Your task to perform on an android device: turn off improve location accuracy Image 0: 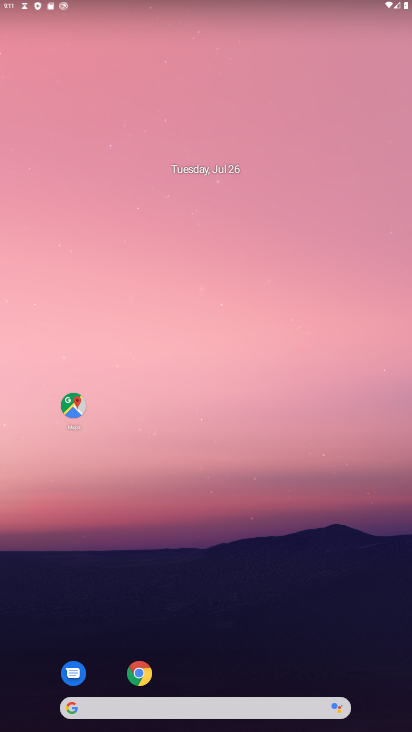
Step 0: drag from (202, 704) to (276, 107)
Your task to perform on an android device: turn off improve location accuracy Image 1: 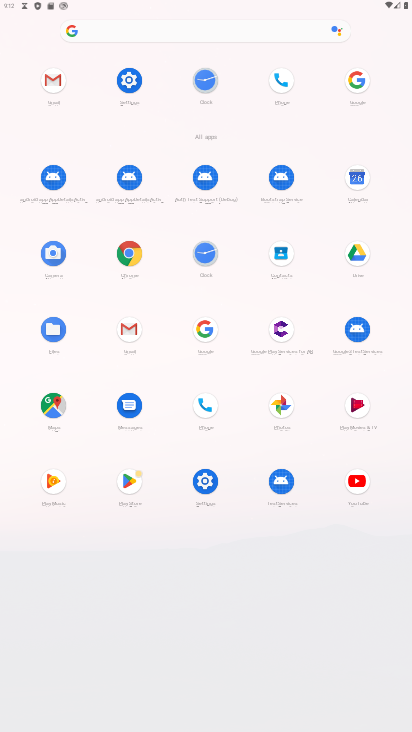
Step 1: click (129, 80)
Your task to perform on an android device: turn off improve location accuracy Image 2: 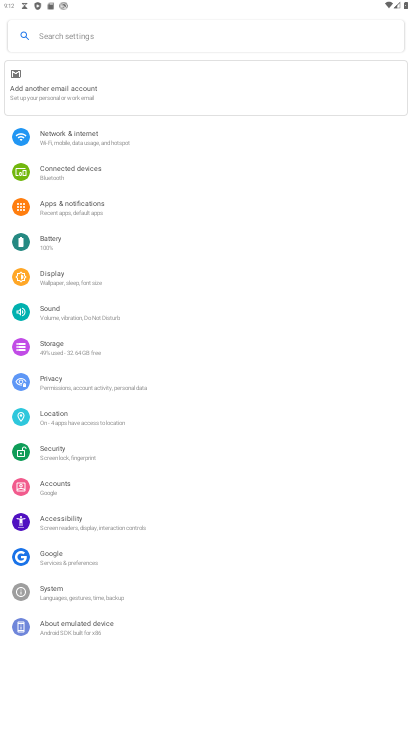
Step 2: click (51, 417)
Your task to perform on an android device: turn off improve location accuracy Image 3: 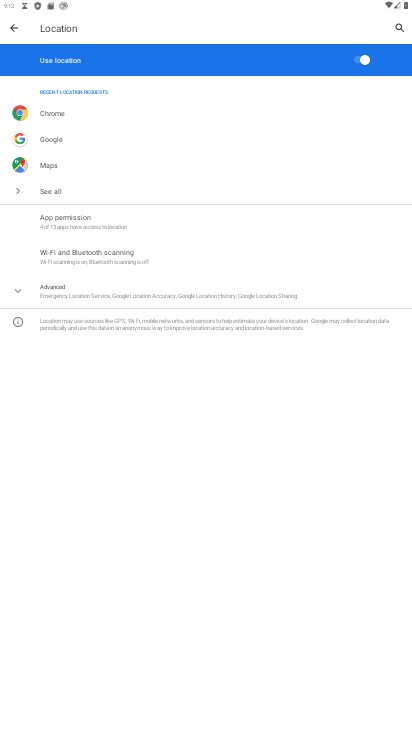
Step 3: click (101, 293)
Your task to perform on an android device: turn off improve location accuracy Image 4: 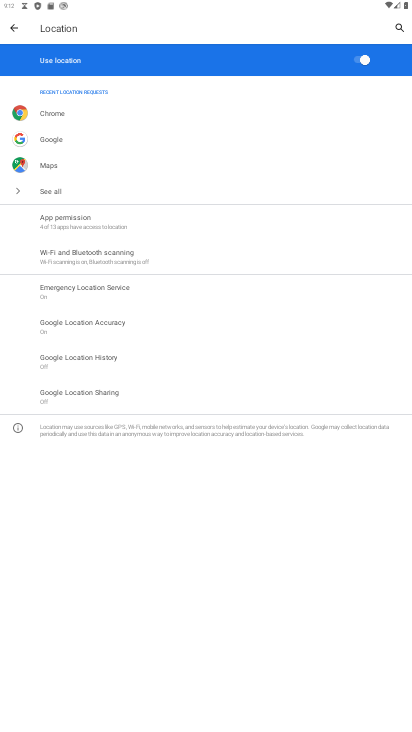
Step 4: click (108, 324)
Your task to perform on an android device: turn off improve location accuracy Image 5: 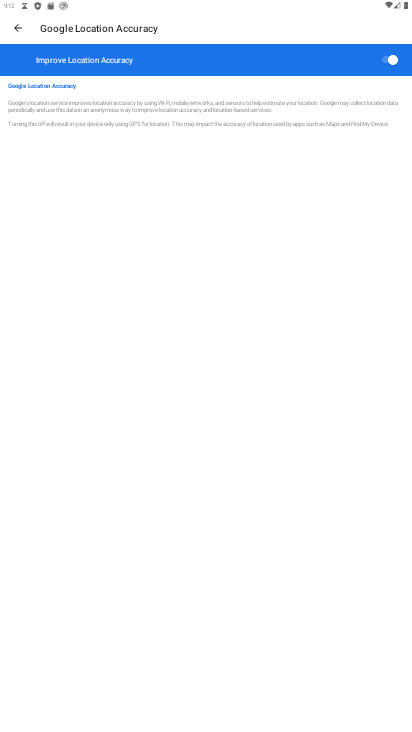
Step 5: click (392, 60)
Your task to perform on an android device: turn off improve location accuracy Image 6: 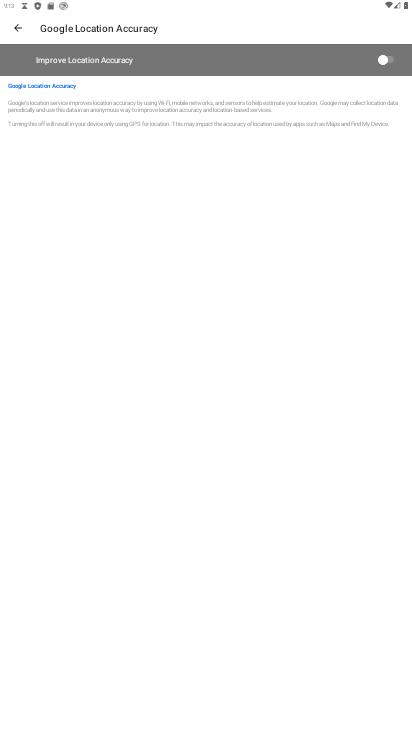
Step 6: task complete